Your task to perform on an android device: Open the web browser Image 0: 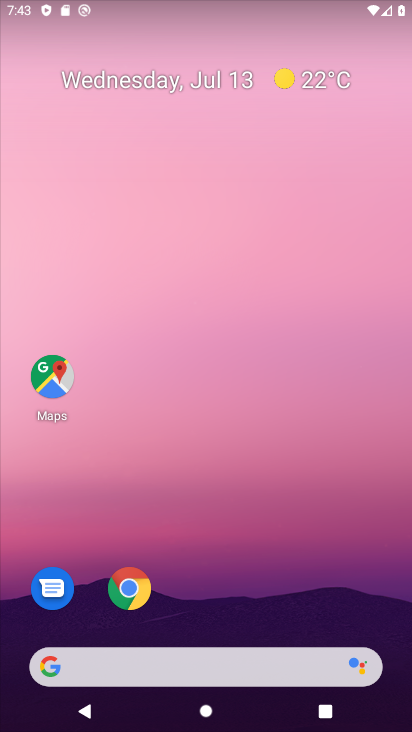
Step 0: click (140, 575)
Your task to perform on an android device: Open the web browser Image 1: 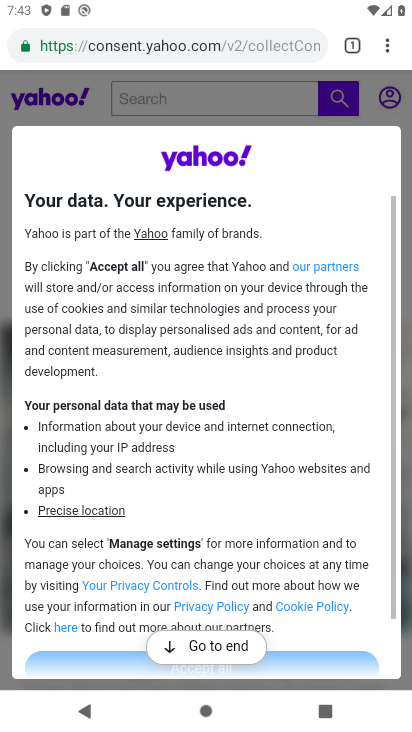
Step 1: task complete